Your task to perform on an android device: Open calendar and show me the third week of next month Image 0: 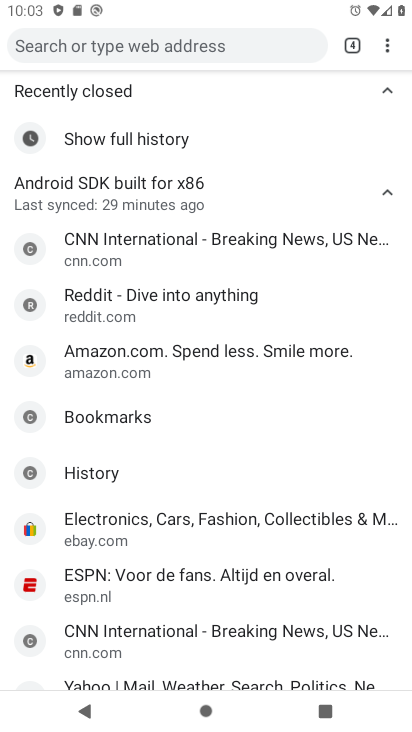
Step 0: press back button
Your task to perform on an android device: Open calendar and show me the third week of next month Image 1: 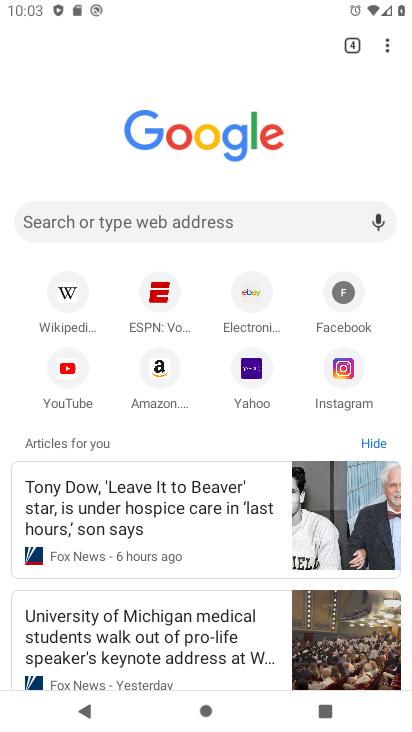
Step 1: press back button
Your task to perform on an android device: Open calendar and show me the third week of next month Image 2: 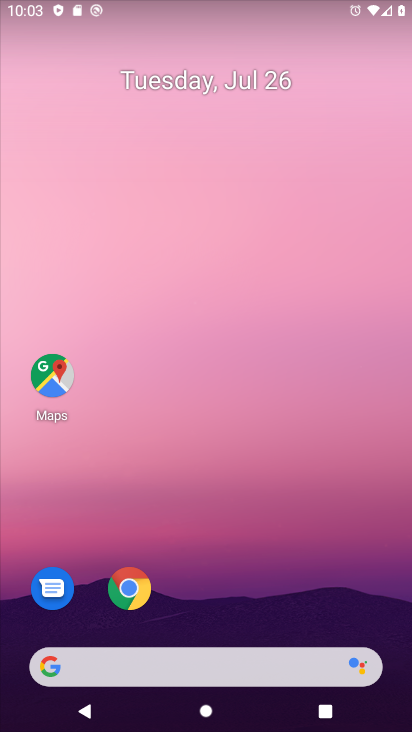
Step 2: drag from (176, 620) to (173, 62)
Your task to perform on an android device: Open calendar and show me the third week of next month Image 3: 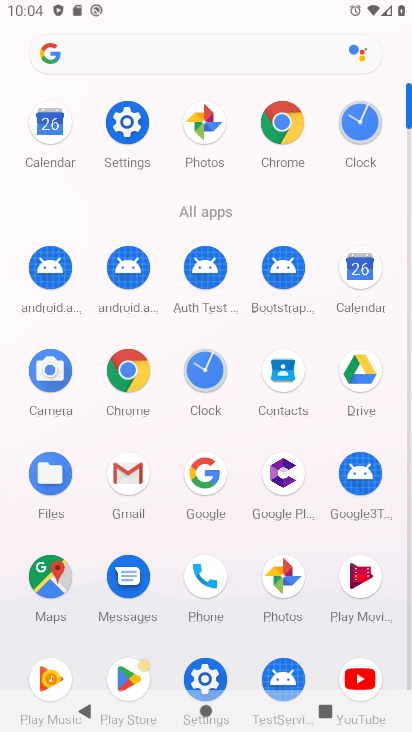
Step 3: click (372, 275)
Your task to perform on an android device: Open calendar and show me the third week of next month Image 4: 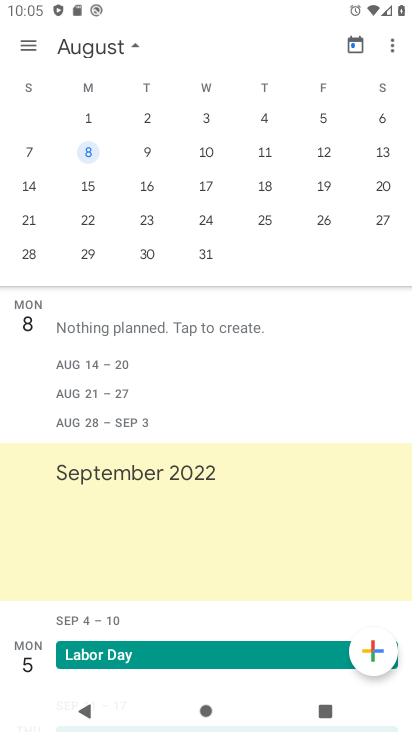
Step 4: click (89, 183)
Your task to perform on an android device: Open calendar and show me the third week of next month Image 5: 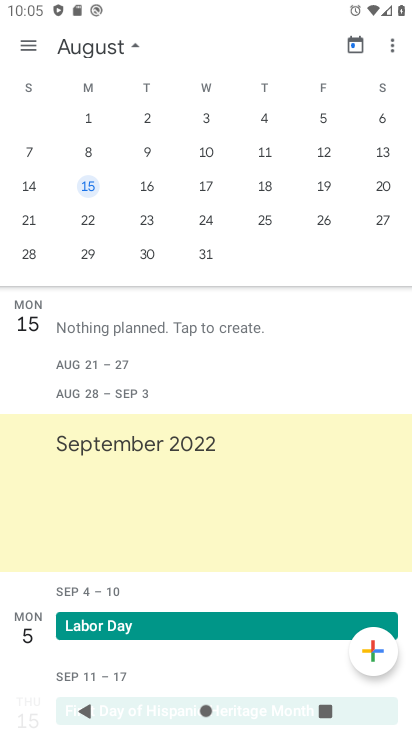
Step 5: task complete